Your task to perform on an android device: show emergency info Image 0: 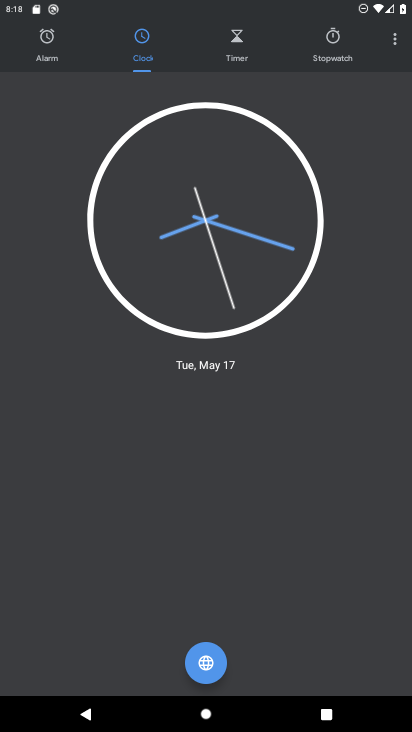
Step 0: press home button
Your task to perform on an android device: show emergency info Image 1: 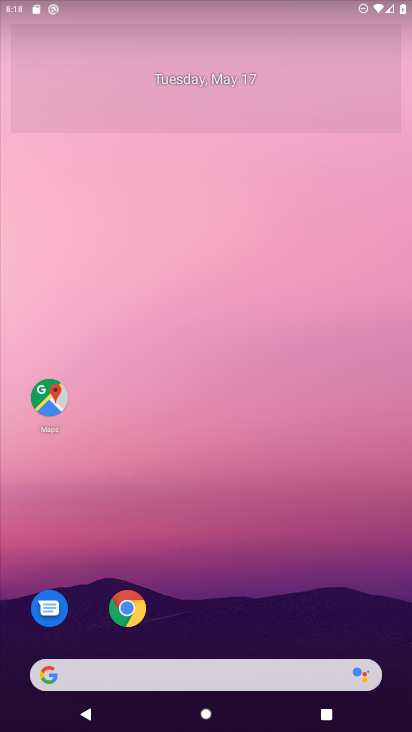
Step 1: drag from (244, 592) to (295, 192)
Your task to perform on an android device: show emergency info Image 2: 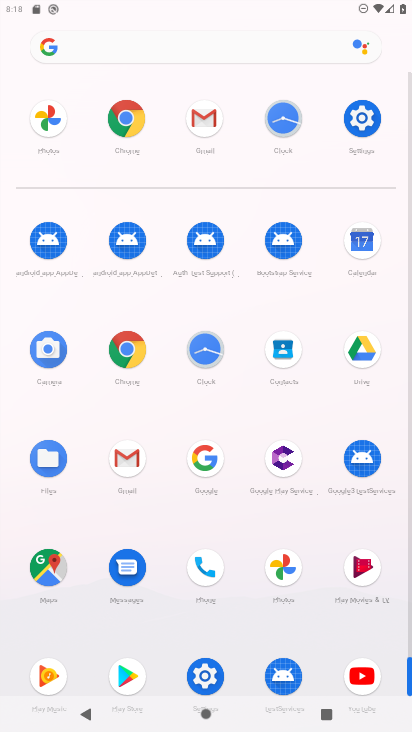
Step 2: click (214, 667)
Your task to perform on an android device: show emergency info Image 3: 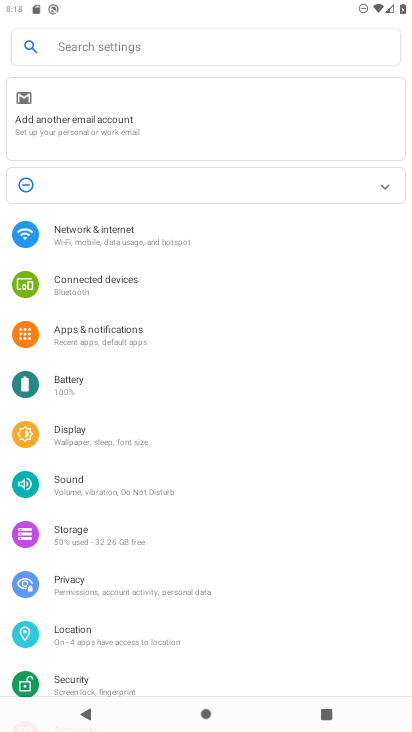
Step 3: drag from (77, 563) to (173, 145)
Your task to perform on an android device: show emergency info Image 4: 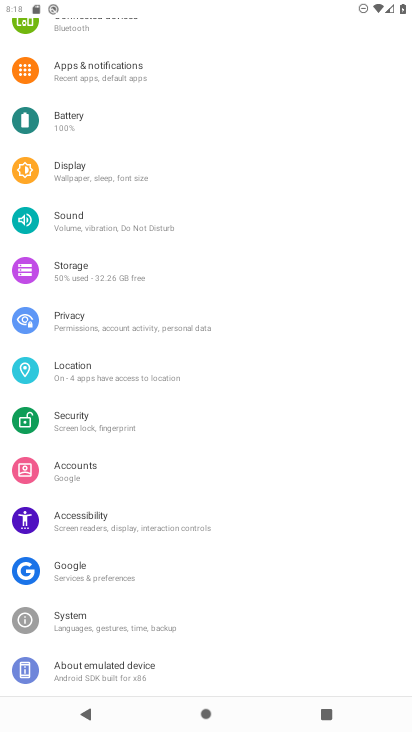
Step 4: drag from (126, 577) to (183, 381)
Your task to perform on an android device: show emergency info Image 5: 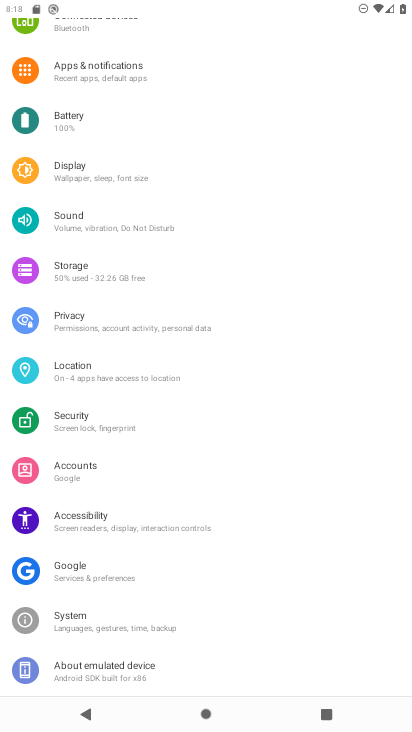
Step 5: click (87, 661)
Your task to perform on an android device: show emergency info Image 6: 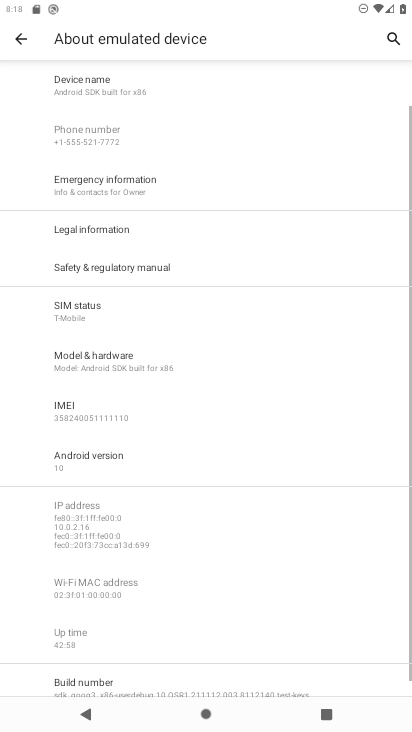
Step 6: click (116, 187)
Your task to perform on an android device: show emergency info Image 7: 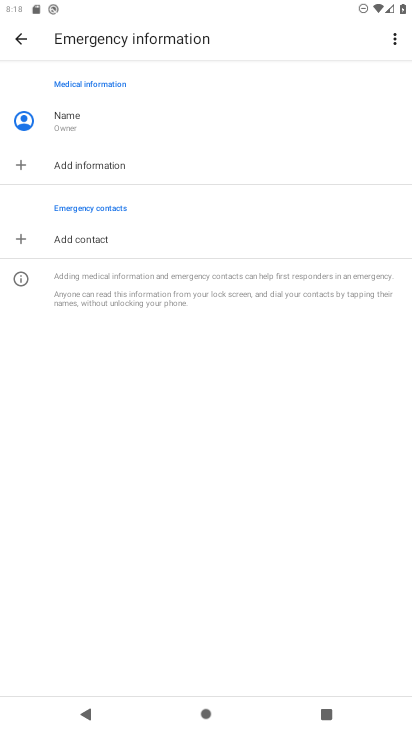
Step 7: task complete